Your task to perform on an android device: turn on bluetooth scan Image 0: 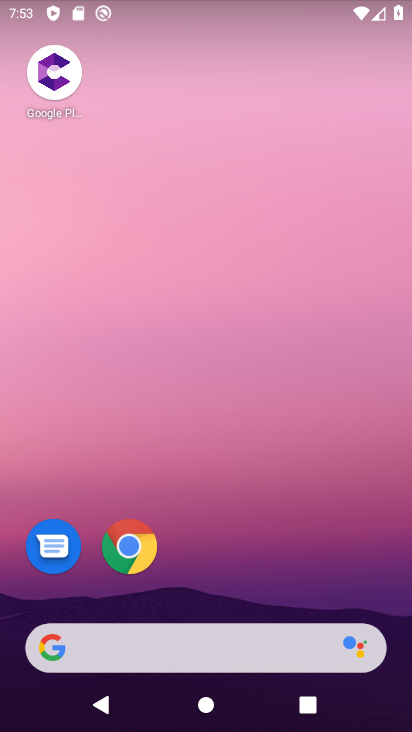
Step 0: drag from (202, 570) to (301, 2)
Your task to perform on an android device: turn on bluetooth scan Image 1: 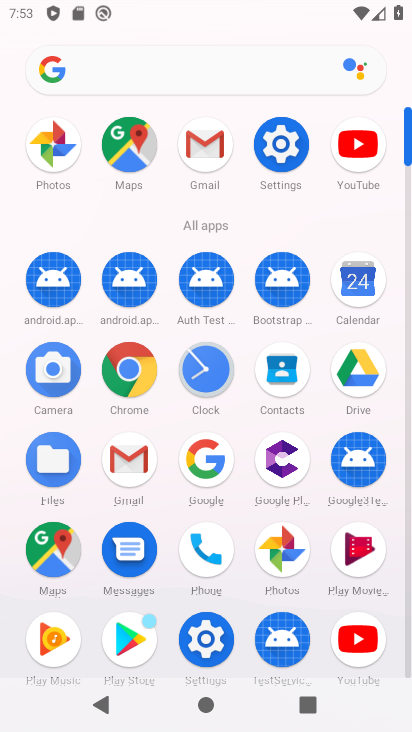
Step 1: click (290, 128)
Your task to perform on an android device: turn on bluetooth scan Image 2: 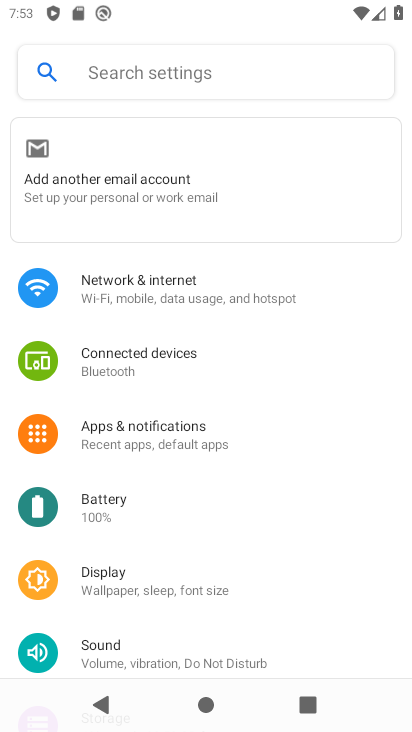
Step 2: click (137, 76)
Your task to perform on an android device: turn on bluetooth scan Image 3: 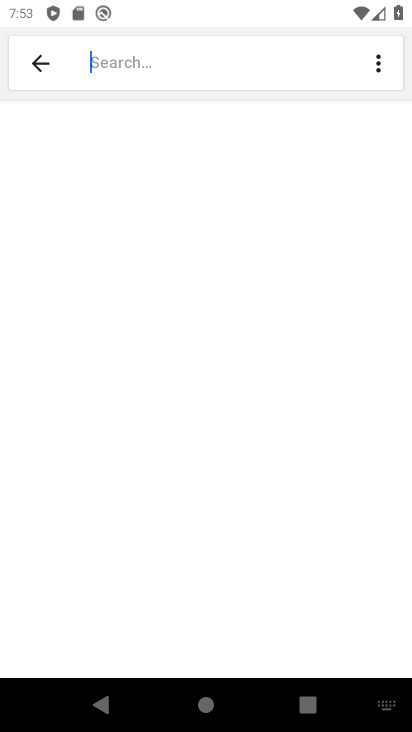
Step 3: type "bluetooth scan"
Your task to perform on an android device: turn on bluetooth scan Image 4: 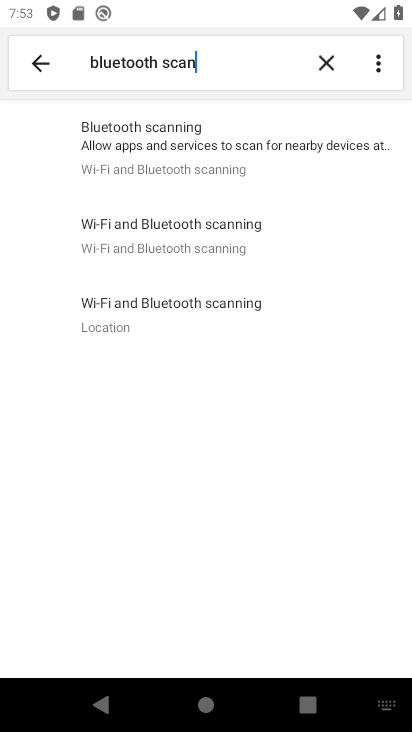
Step 4: click (171, 137)
Your task to perform on an android device: turn on bluetooth scan Image 5: 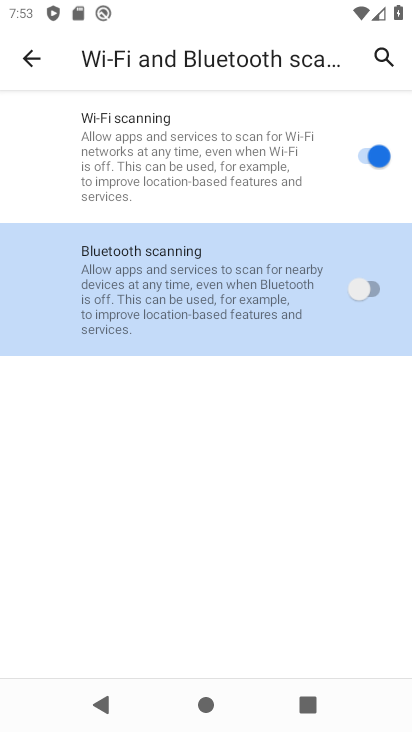
Step 5: click (295, 287)
Your task to perform on an android device: turn on bluetooth scan Image 6: 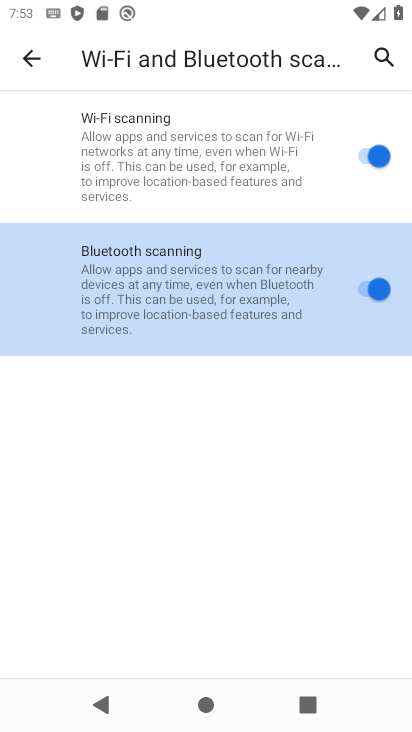
Step 6: task complete